Your task to perform on an android device: turn on bluetooth scan Image 0: 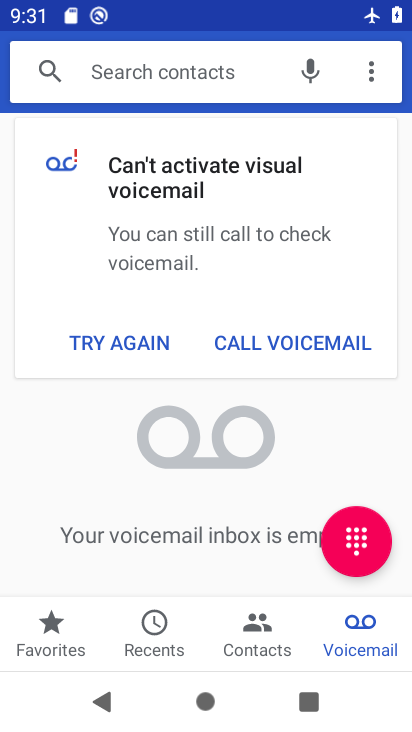
Step 0: press home button
Your task to perform on an android device: turn on bluetooth scan Image 1: 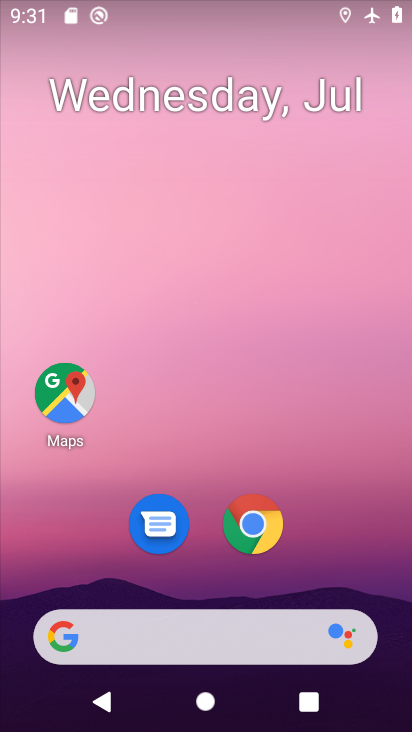
Step 1: drag from (323, 561) to (302, 40)
Your task to perform on an android device: turn on bluetooth scan Image 2: 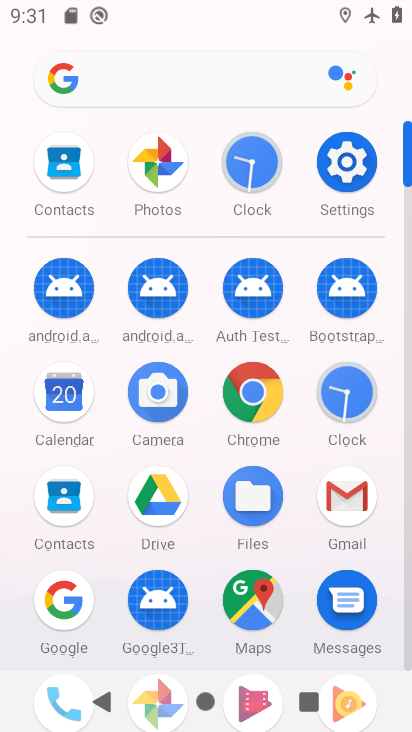
Step 2: click (347, 165)
Your task to perform on an android device: turn on bluetooth scan Image 3: 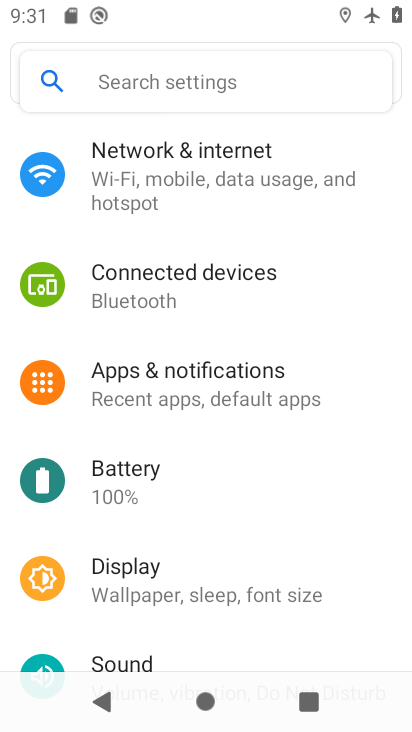
Step 3: drag from (231, 588) to (271, 152)
Your task to perform on an android device: turn on bluetooth scan Image 4: 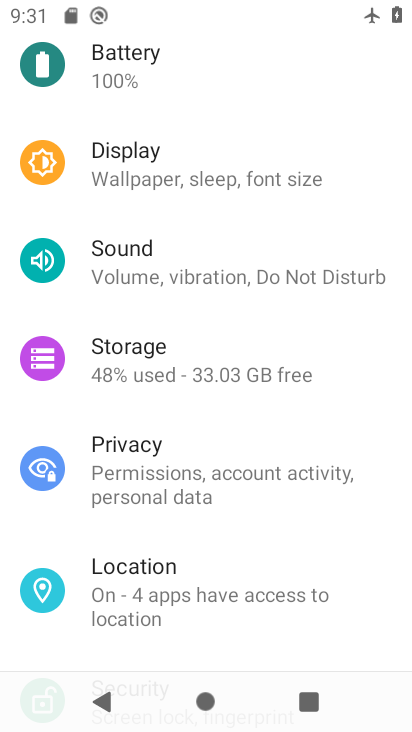
Step 4: click (209, 584)
Your task to perform on an android device: turn on bluetooth scan Image 5: 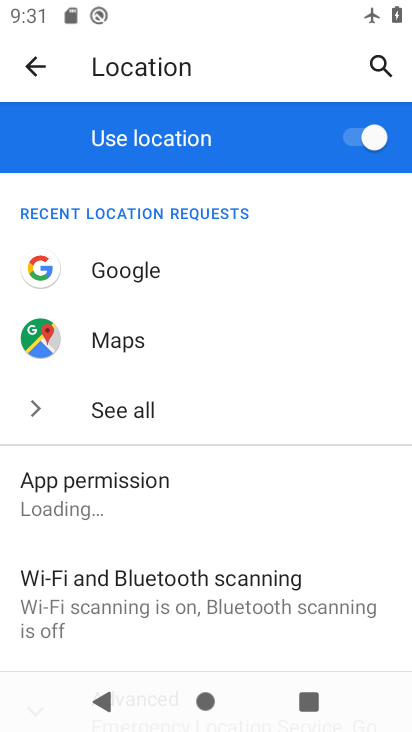
Step 5: click (247, 607)
Your task to perform on an android device: turn on bluetooth scan Image 6: 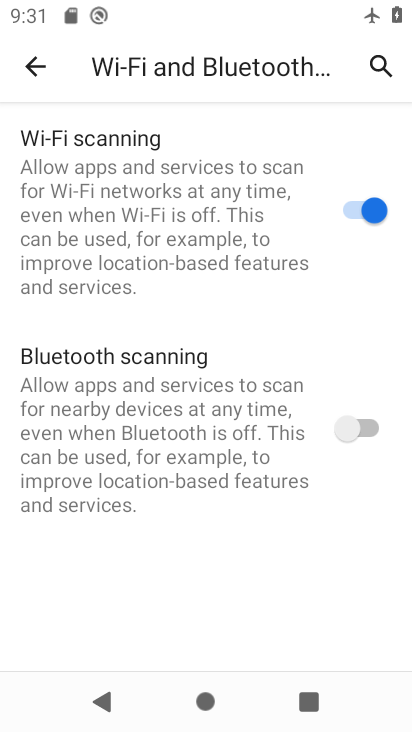
Step 6: click (357, 423)
Your task to perform on an android device: turn on bluetooth scan Image 7: 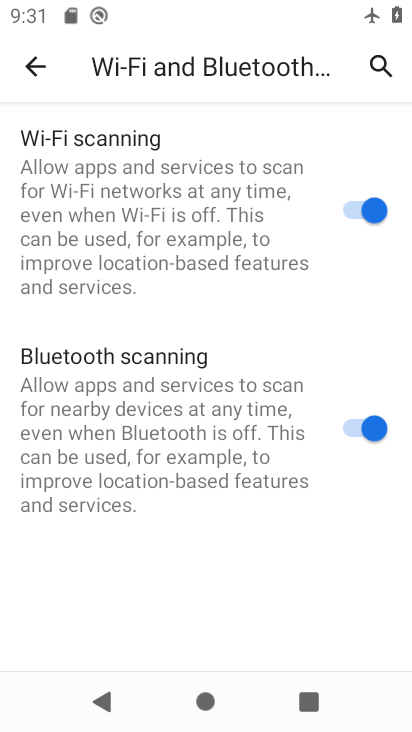
Step 7: task complete